Your task to perform on an android device: Check the weather Image 0: 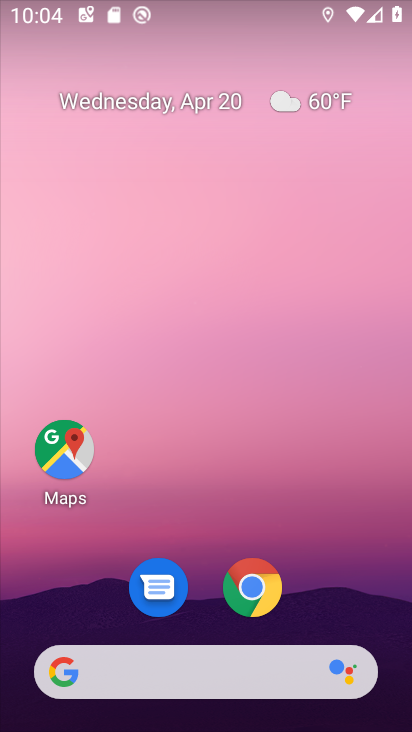
Step 0: click (258, 588)
Your task to perform on an android device: Check the weather Image 1: 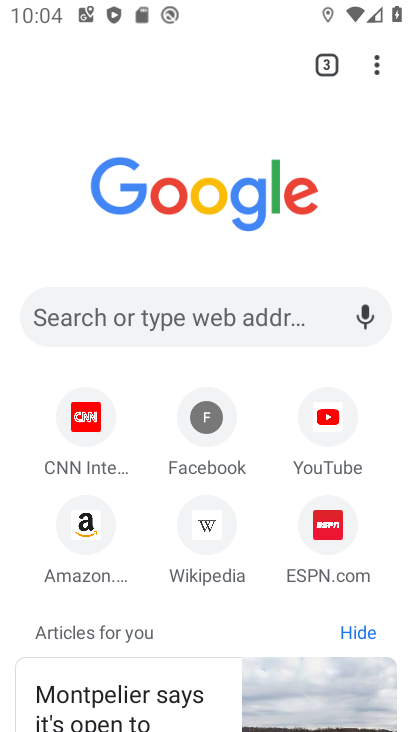
Step 1: click (151, 313)
Your task to perform on an android device: Check the weather Image 2: 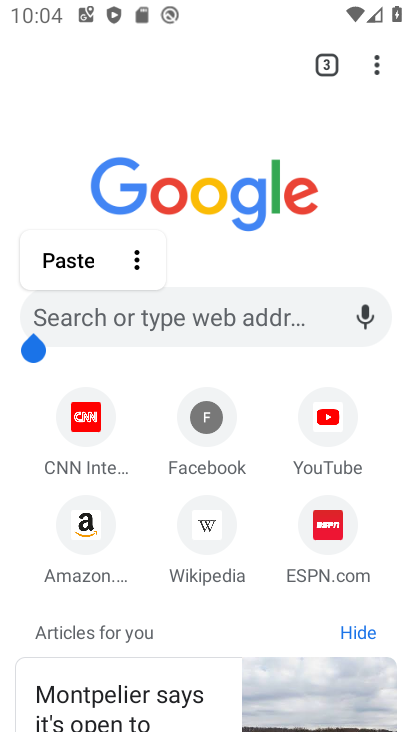
Step 2: click (151, 313)
Your task to perform on an android device: Check the weather Image 3: 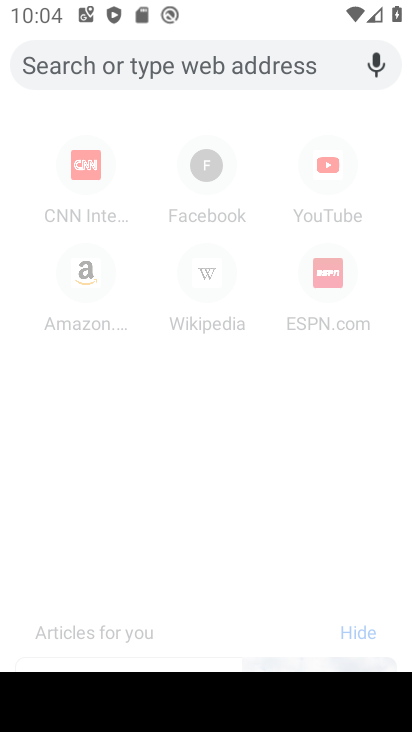
Step 3: type "weather"
Your task to perform on an android device: Check the weather Image 4: 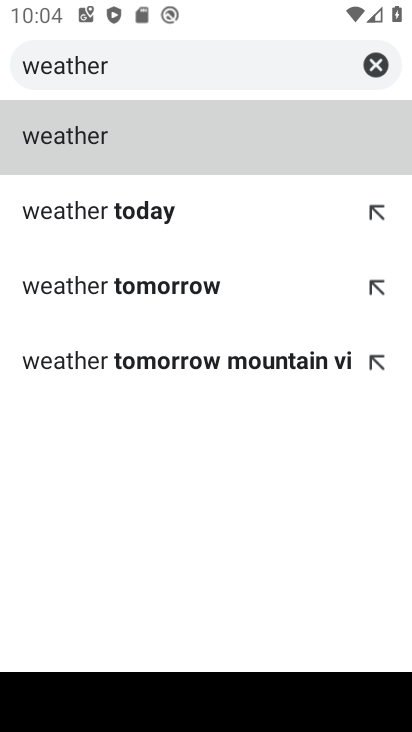
Step 4: click (80, 129)
Your task to perform on an android device: Check the weather Image 5: 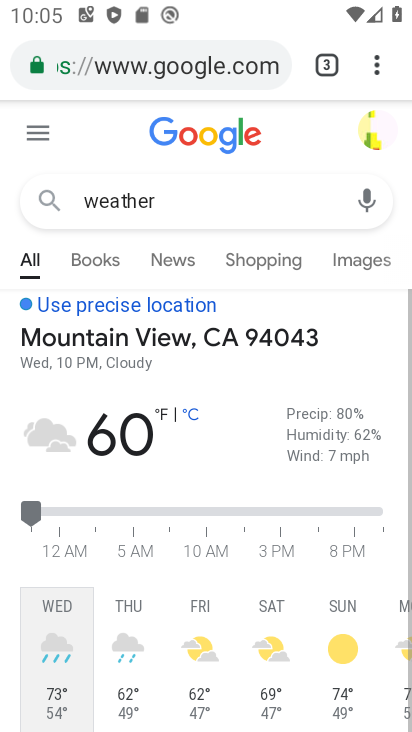
Step 5: task complete